Your task to perform on an android device: Go to sound settings Image 0: 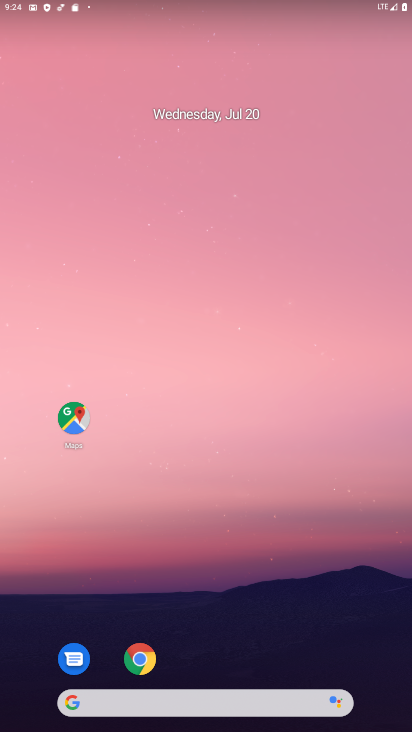
Step 0: drag from (258, 577) to (227, 86)
Your task to perform on an android device: Go to sound settings Image 1: 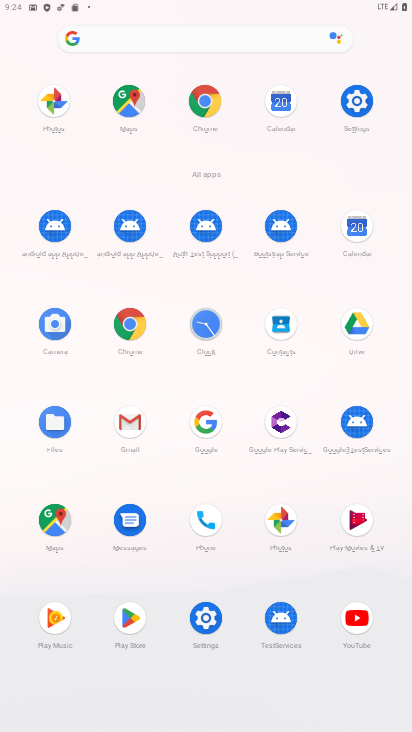
Step 1: click (355, 101)
Your task to perform on an android device: Go to sound settings Image 2: 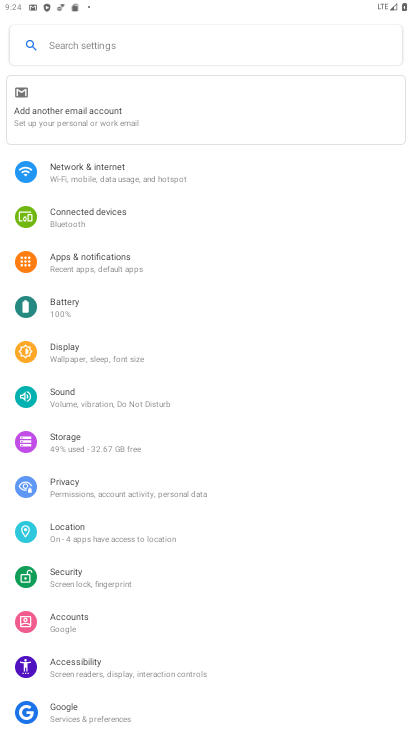
Step 2: click (67, 387)
Your task to perform on an android device: Go to sound settings Image 3: 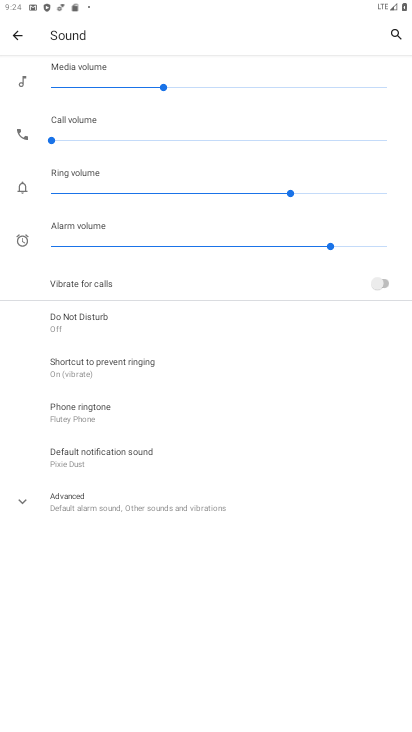
Step 3: task complete